Your task to perform on an android device: turn on notifications settings in the gmail app Image 0: 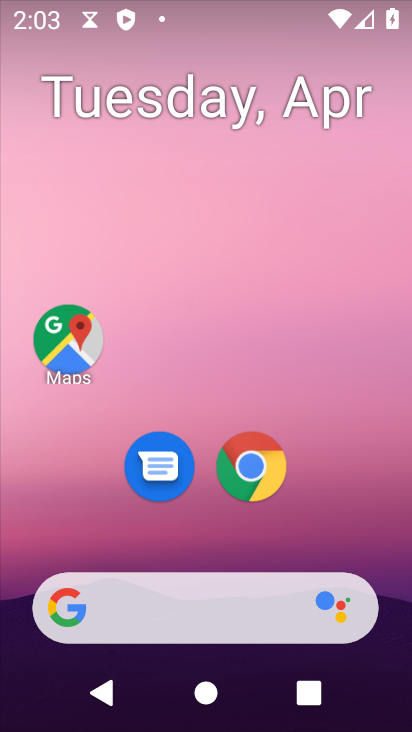
Step 0: click (285, 14)
Your task to perform on an android device: turn on notifications settings in the gmail app Image 1: 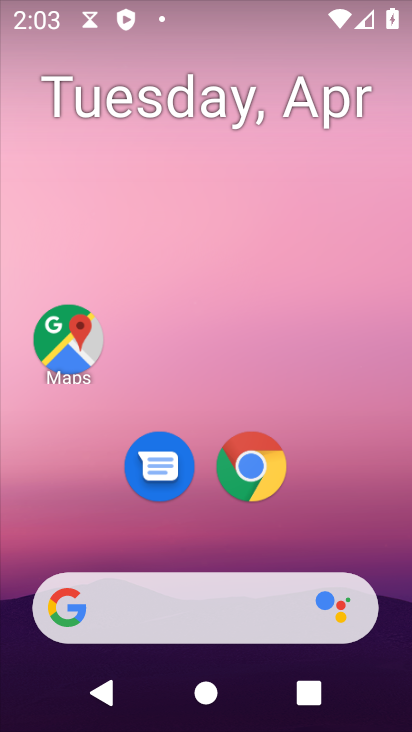
Step 1: drag from (303, 180) to (287, 49)
Your task to perform on an android device: turn on notifications settings in the gmail app Image 2: 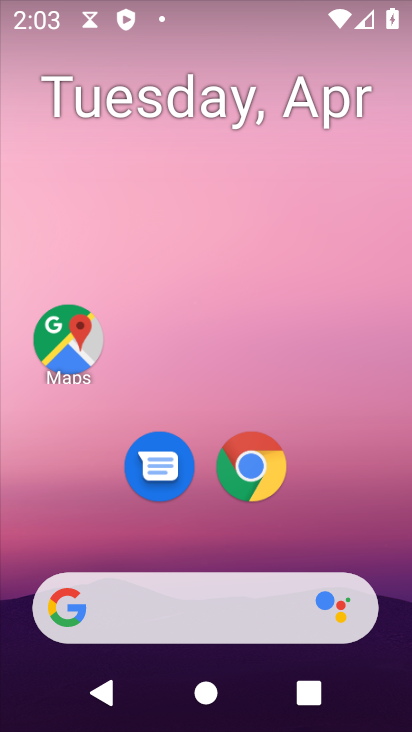
Step 2: drag from (377, 550) to (315, 54)
Your task to perform on an android device: turn on notifications settings in the gmail app Image 3: 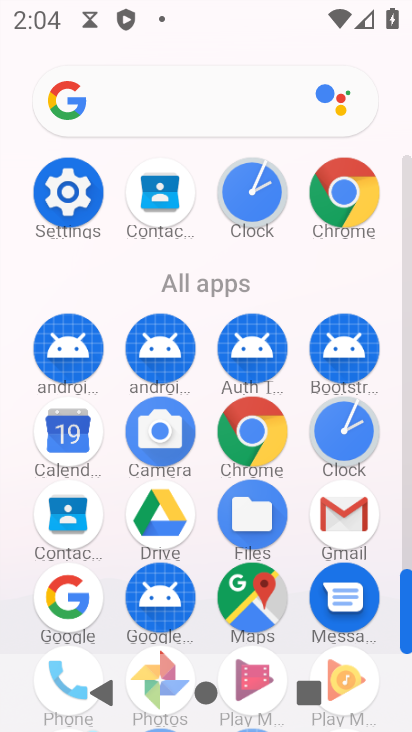
Step 3: click (347, 513)
Your task to perform on an android device: turn on notifications settings in the gmail app Image 4: 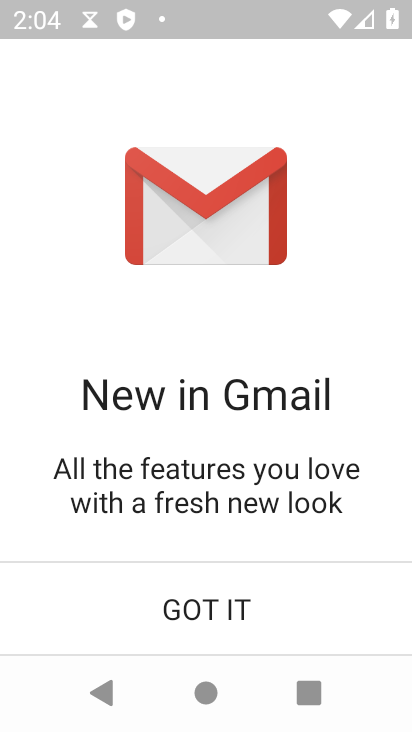
Step 4: click (195, 640)
Your task to perform on an android device: turn on notifications settings in the gmail app Image 5: 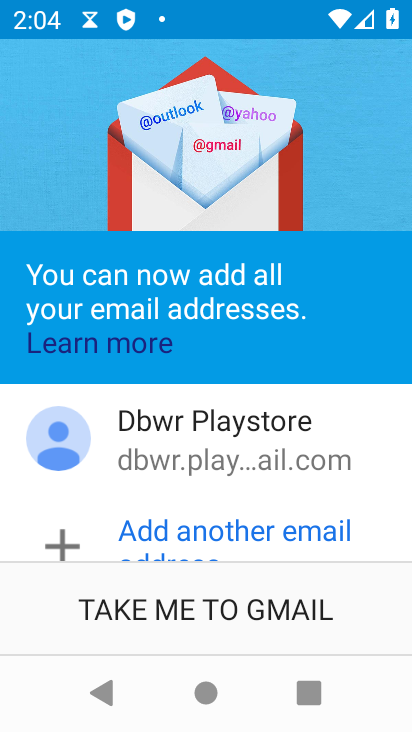
Step 5: click (242, 617)
Your task to perform on an android device: turn on notifications settings in the gmail app Image 6: 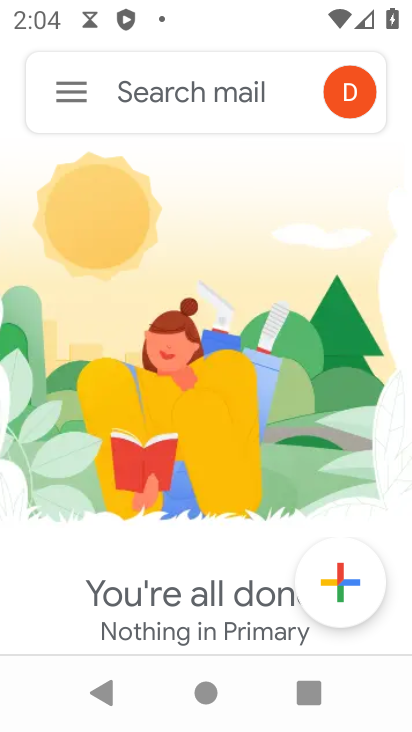
Step 6: click (146, 88)
Your task to perform on an android device: turn on notifications settings in the gmail app Image 7: 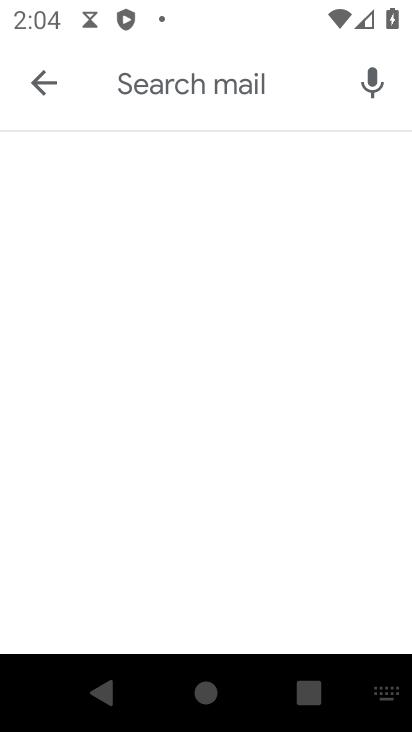
Step 7: click (52, 80)
Your task to perform on an android device: turn on notifications settings in the gmail app Image 8: 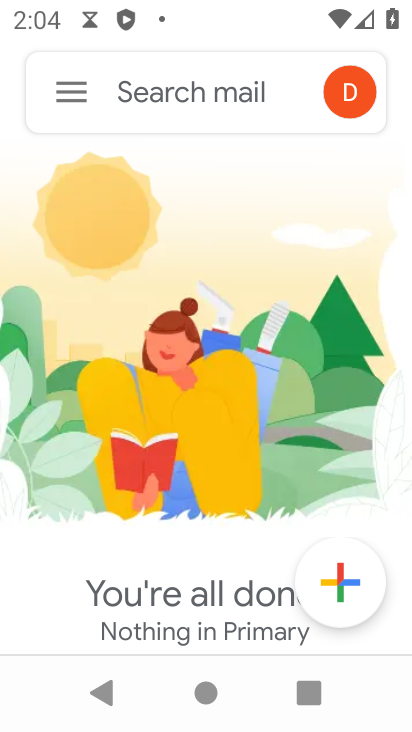
Step 8: click (52, 80)
Your task to perform on an android device: turn on notifications settings in the gmail app Image 9: 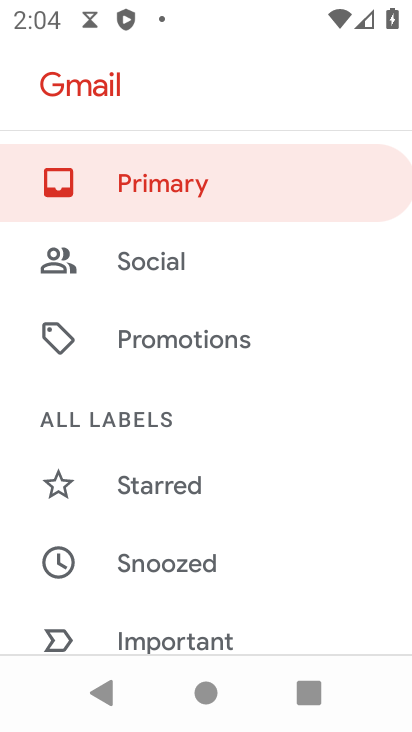
Step 9: drag from (210, 494) to (231, 171)
Your task to perform on an android device: turn on notifications settings in the gmail app Image 10: 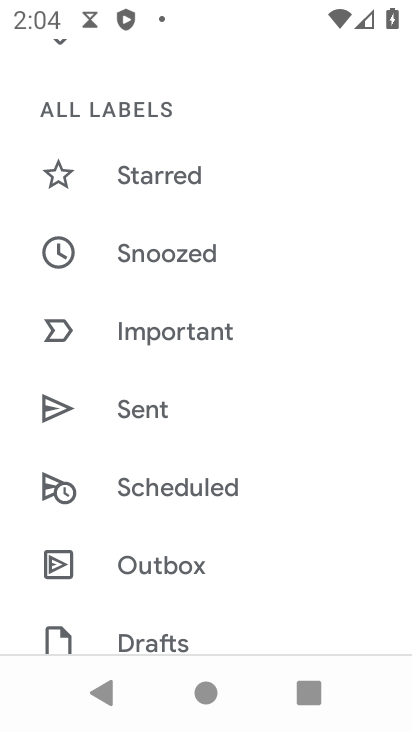
Step 10: drag from (204, 346) to (215, 172)
Your task to perform on an android device: turn on notifications settings in the gmail app Image 11: 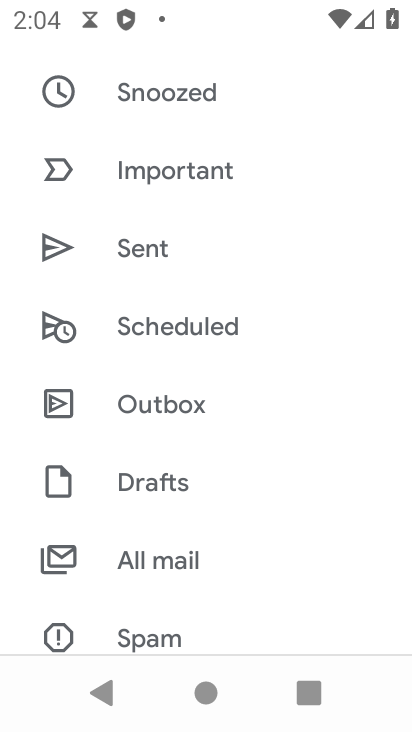
Step 11: drag from (237, 465) to (253, 166)
Your task to perform on an android device: turn on notifications settings in the gmail app Image 12: 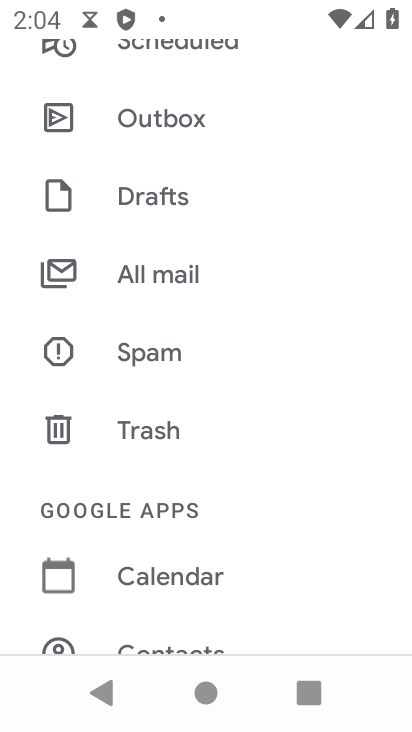
Step 12: drag from (215, 313) to (214, 230)
Your task to perform on an android device: turn on notifications settings in the gmail app Image 13: 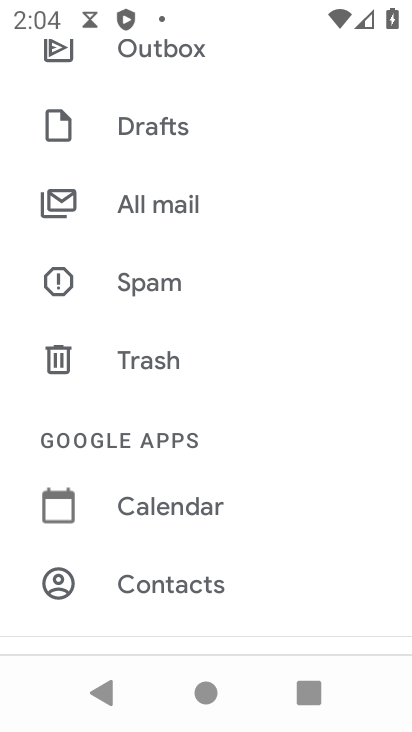
Step 13: drag from (236, 526) to (220, 121)
Your task to perform on an android device: turn on notifications settings in the gmail app Image 14: 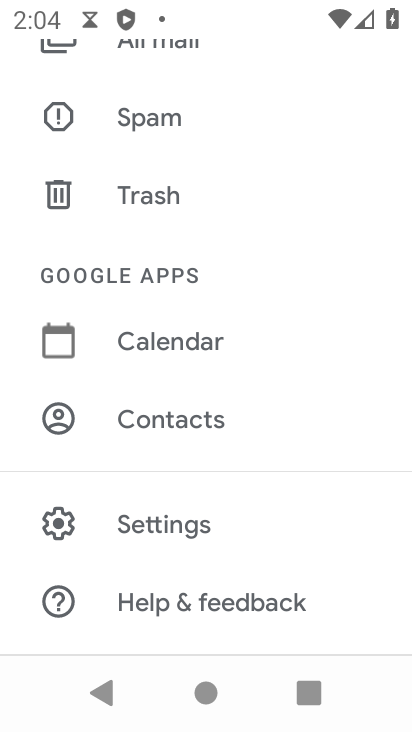
Step 14: click (144, 508)
Your task to perform on an android device: turn on notifications settings in the gmail app Image 15: 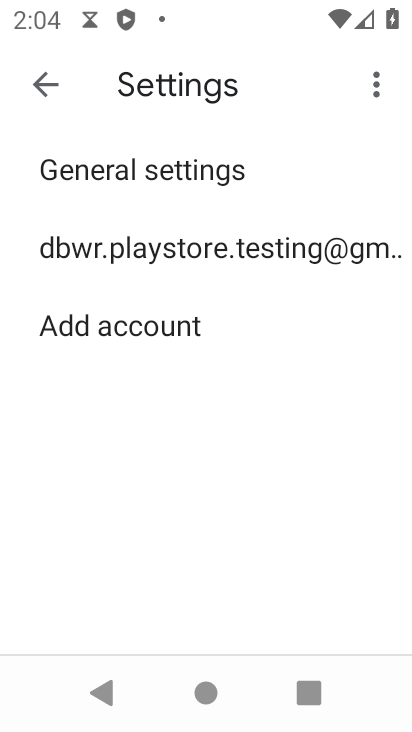
Step 15: click (192, 172)
Your task to perform on an android device: turn on notifications settings in the gmail app Image 16: 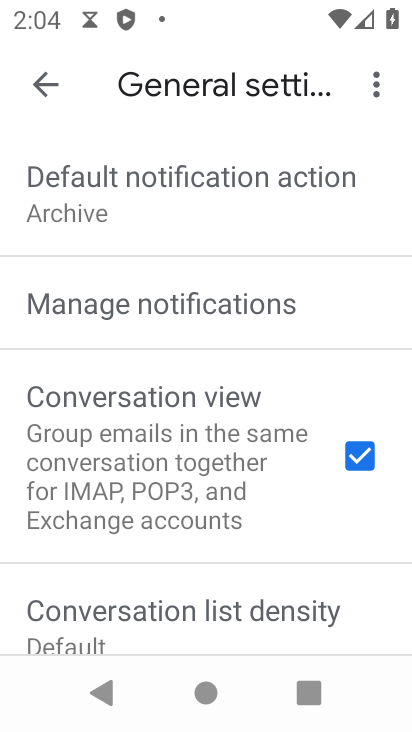
Step 16: drag from (190, 485) to (203, 170)
Your task to perform on an android device: turn on notifications settings in the gmail app Image 17: 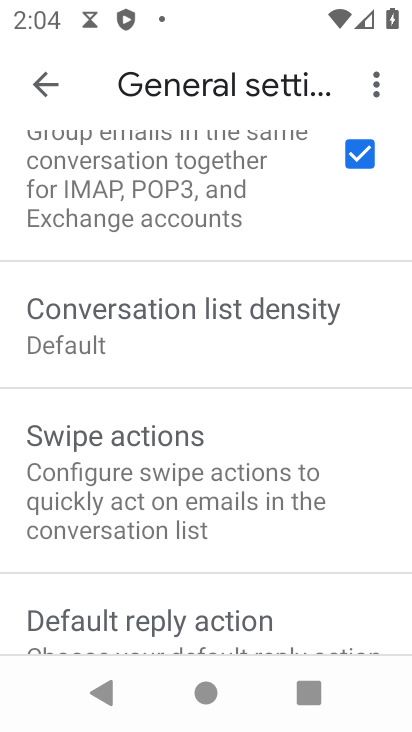
Step 17: drag from (154, 513) to (189, 182)
Your task to perform on an android device: turn on notifications settings in the gmail app Image 18: 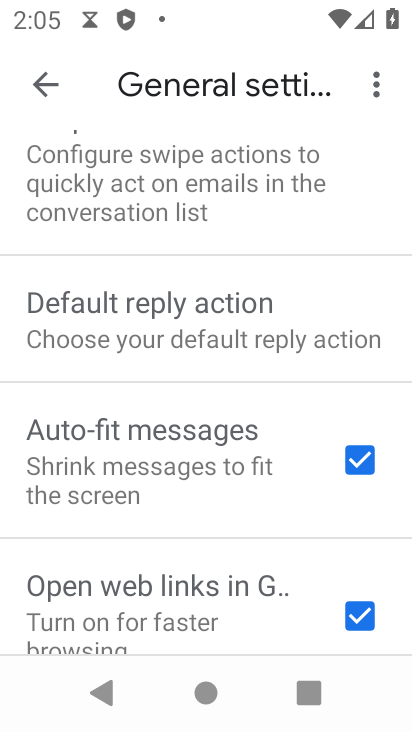
Step 18: drag from (177, 523) to (184, 223)
Your task to perform on an android device: turn on notifications settings in the gmail app Image 19: 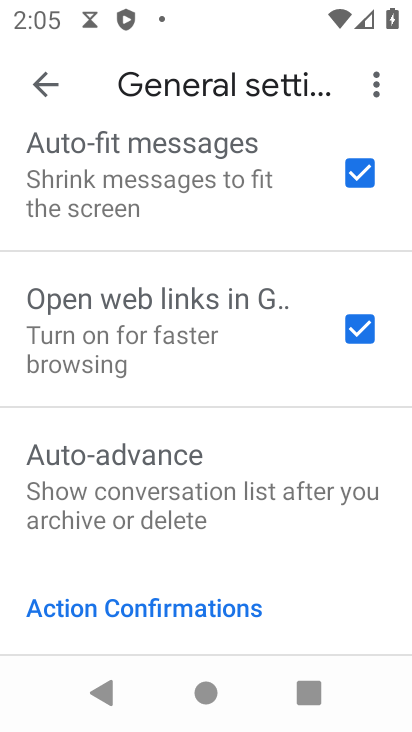
Step 19: click (38, 90)
Your task to perform on an android device: turn on notifications settings in the gmail app Image 20: 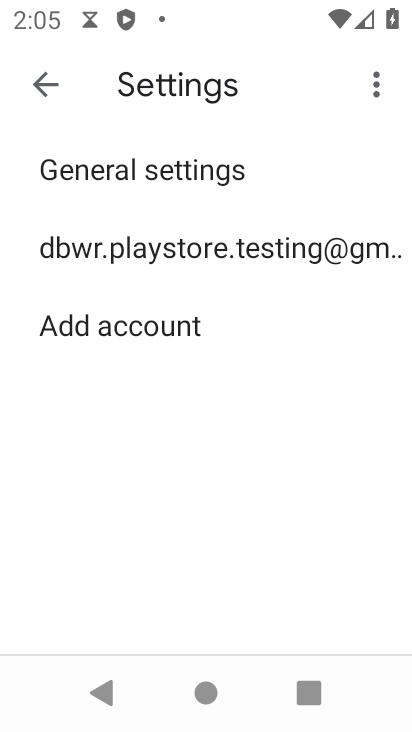
Step 20: click (115, 274)
Your task to perform on an android device: turn on notifications settings in the gmail app Image 21: 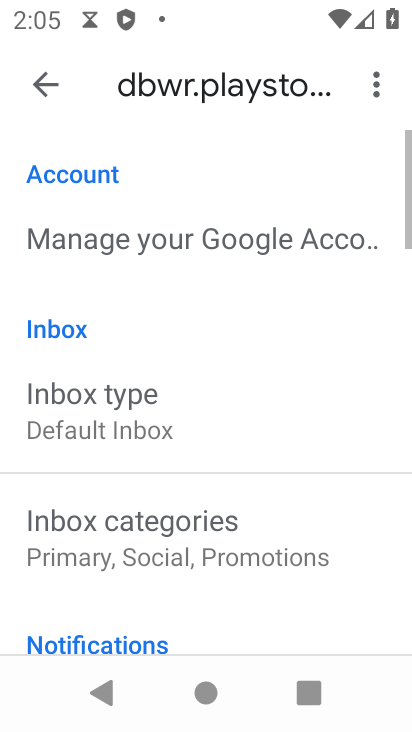
Step 21: drag from (210, 561) to (247, 166)
Your task to perform on an android device: turn on notifications settings in the gmail app Image 22: 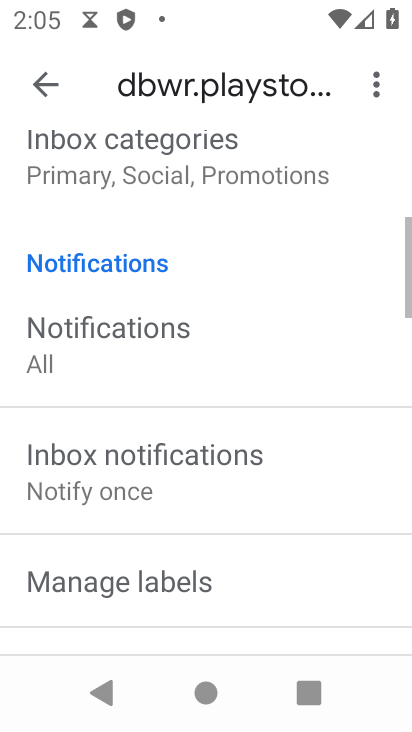
Step 22: drag from (193, 560) to (217, 221)
Your task to perform on an android device: turn on notifications settings in the gmail app Image 23: 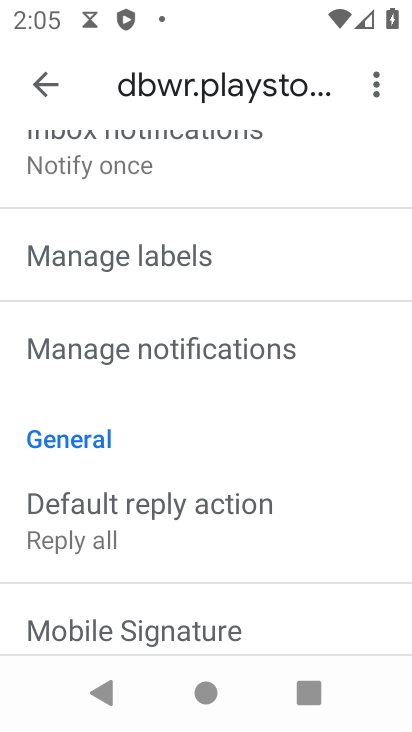
Step 23: click (199, 354)
Your task to perform on an android device: turn on notifications settings in the gmail app Image 24: 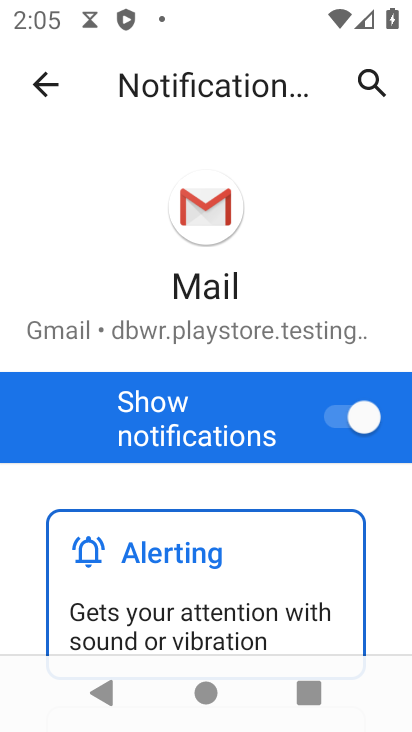
Step 24: task complete